Your task to perform on an android device: View the shopping cart on costco.com. Image 0: 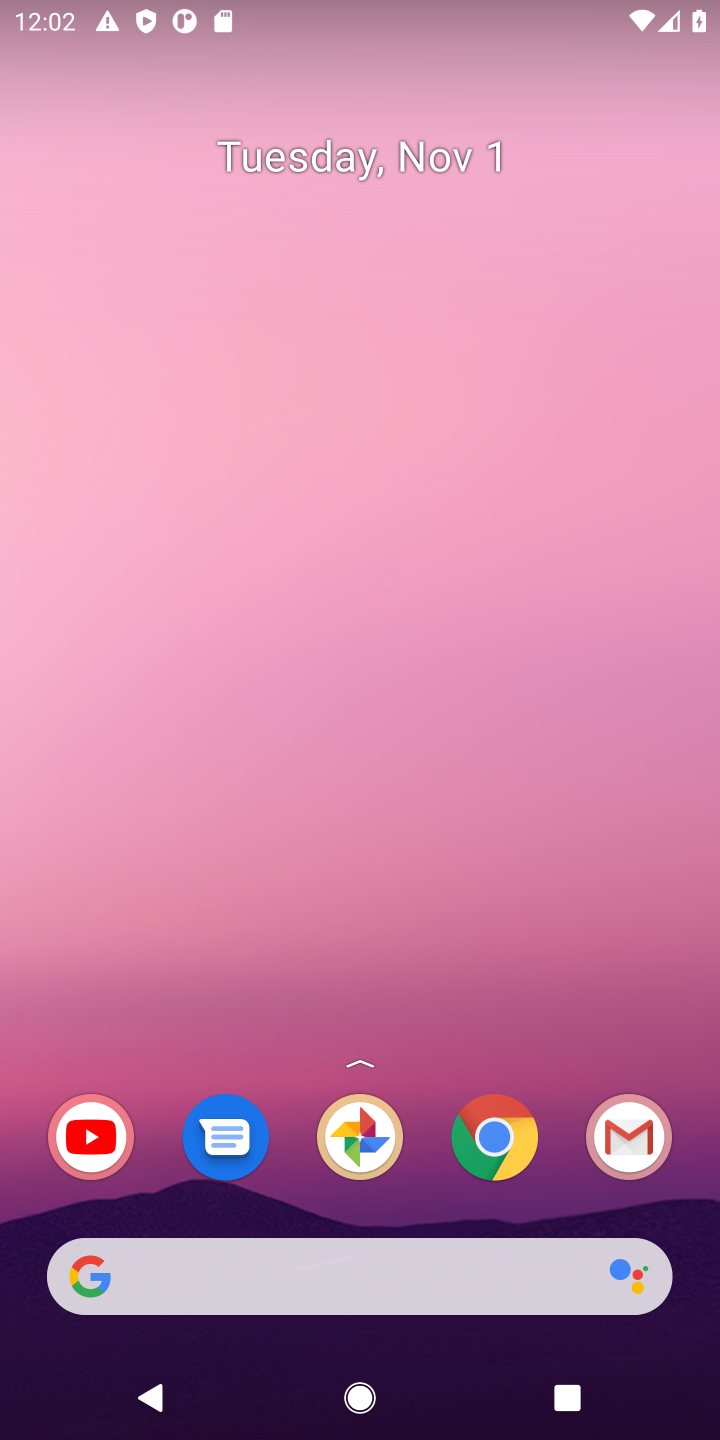
Step 0: click (497, 1139)
Your task to perform on an android device: View the shopping cart on costco.com. Image 1: 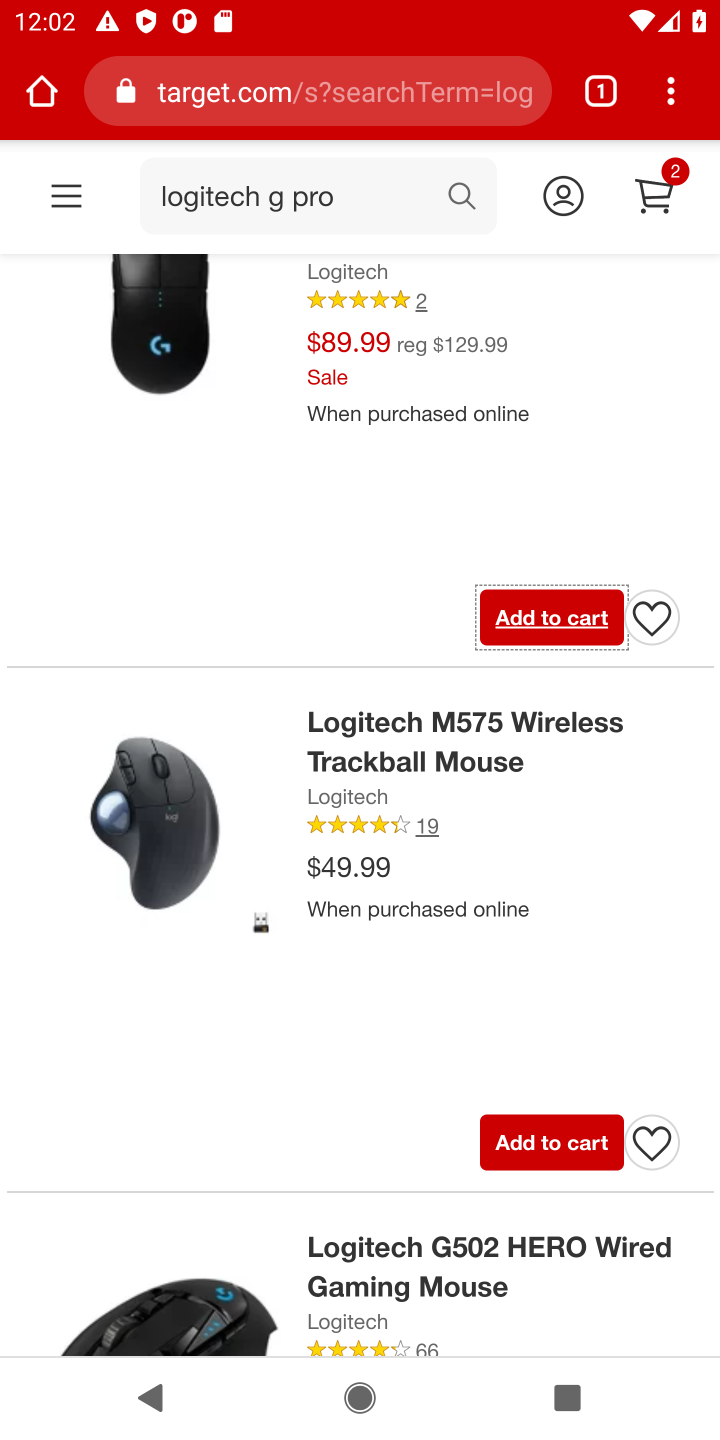
Step 1: click (479, 93)
Your task to perform on an android device: View the shopping cart on costco.com. Image 2: 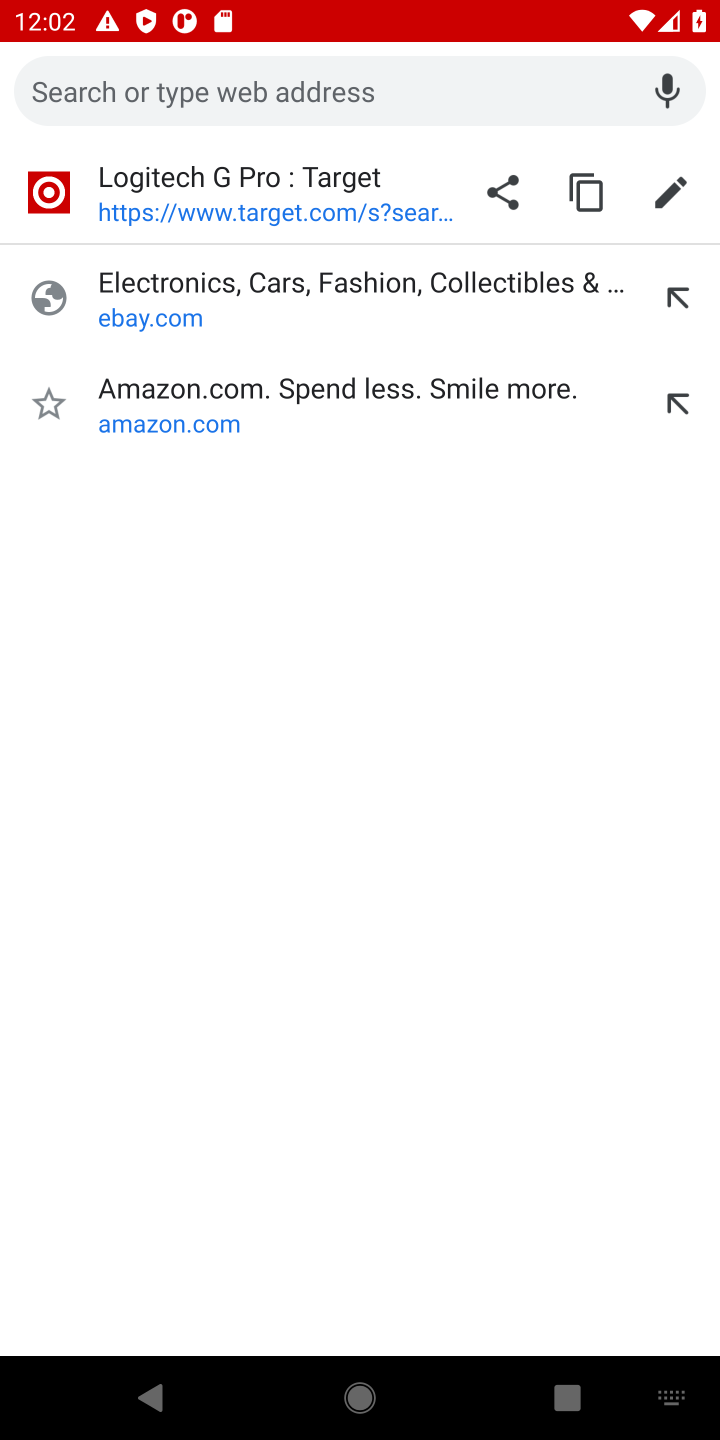
Step 2: type "costco.com"
Your task to perform on an android device: View the shopping cart on costco.com. Image 3: 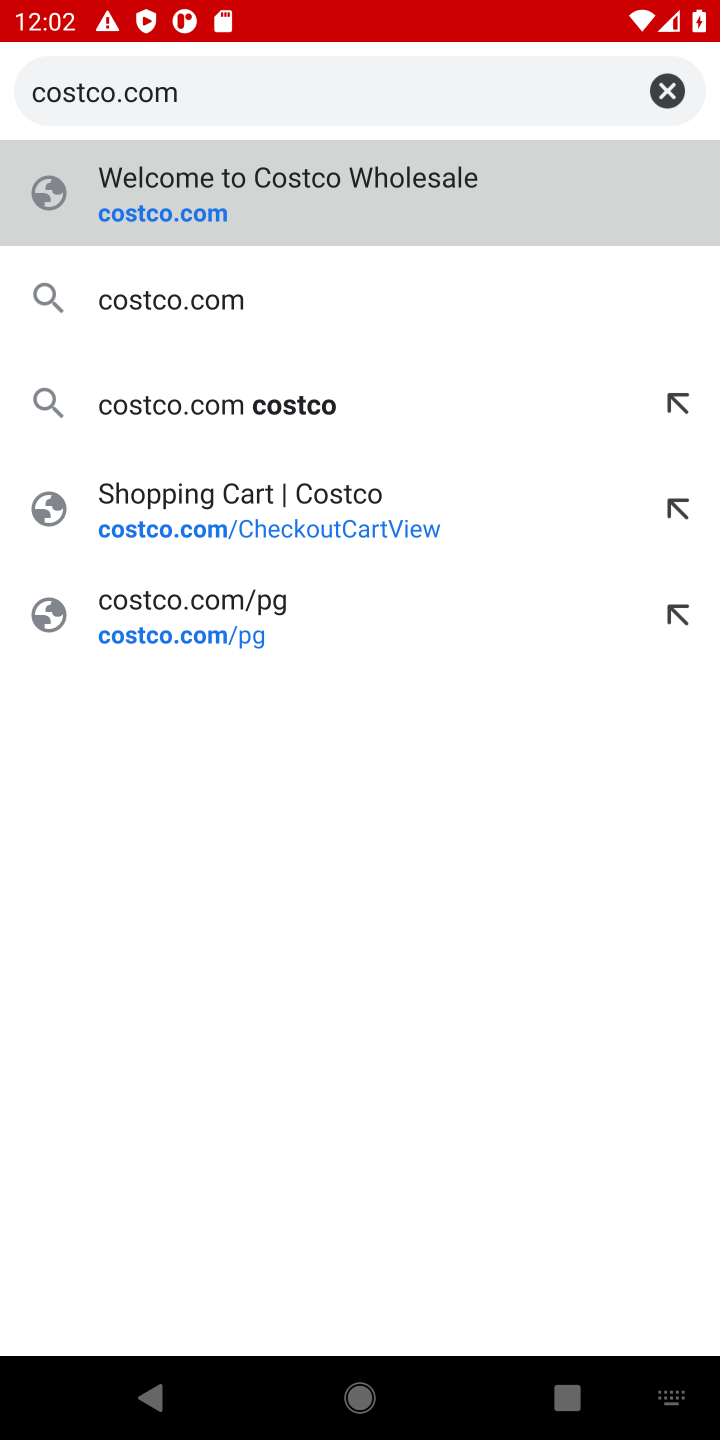
Step 3: click (201, 294)
Your task to perform on an android device: View the shopping cart on costco.com. Image 4: 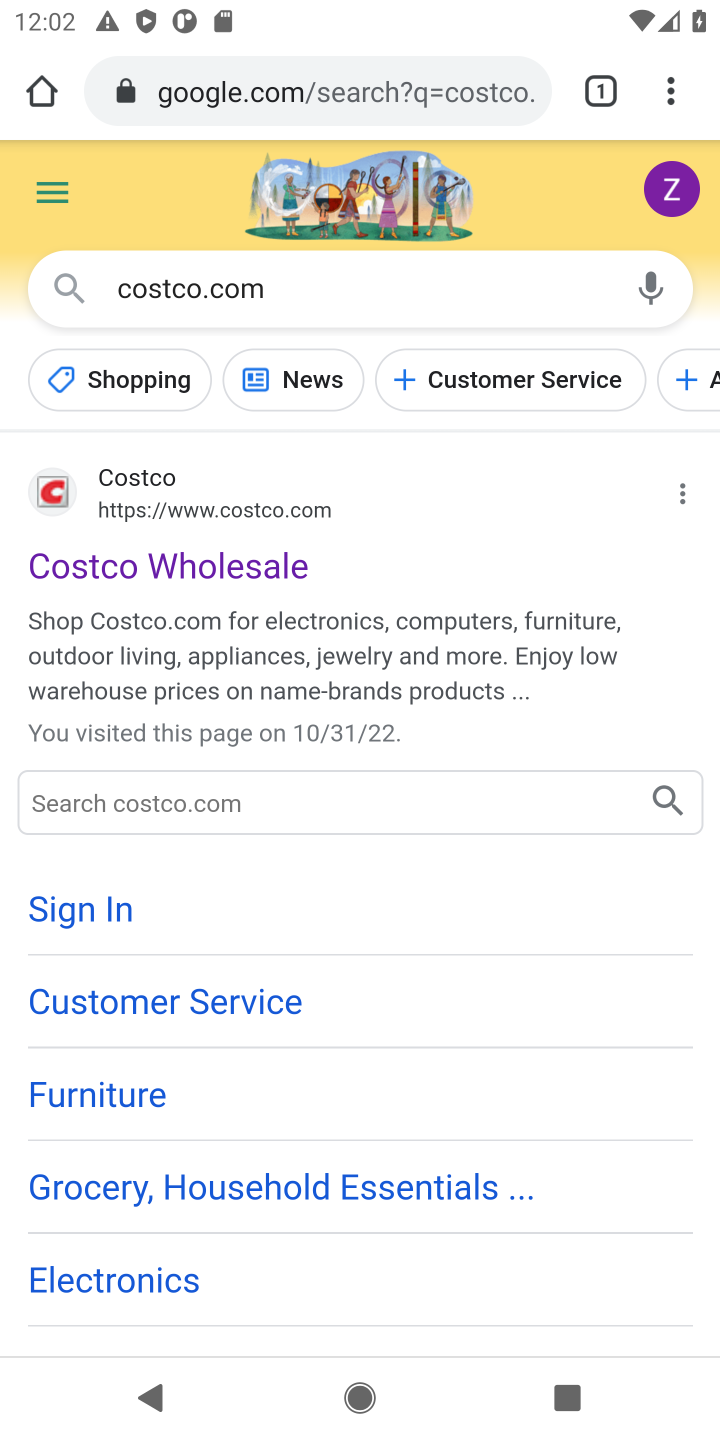
Step 4: click (166, 557)
Your task to perform on an android device: View the shopping cart on costco.com. Image 5: 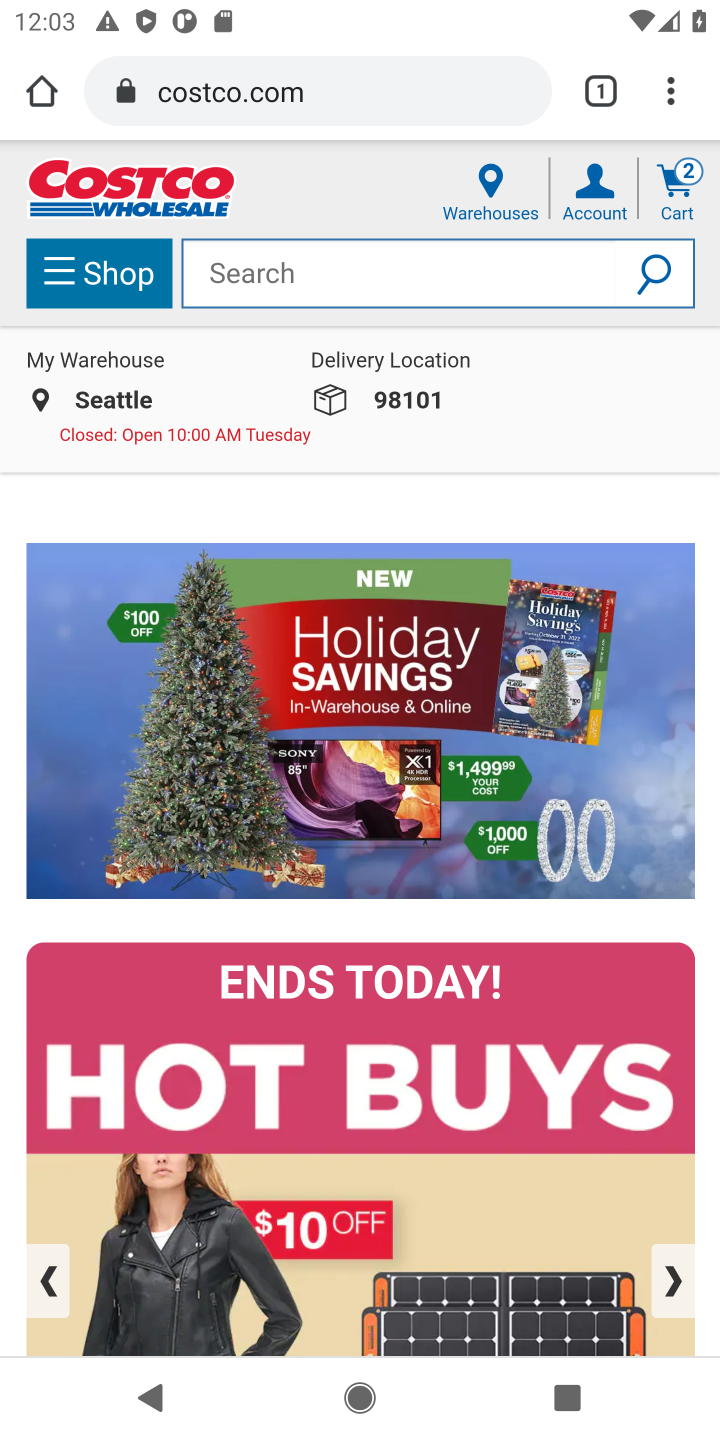
Step 5: click (672, 189)
Your task to perform on an android device: View the shopping cart on costco.com. Image 6: 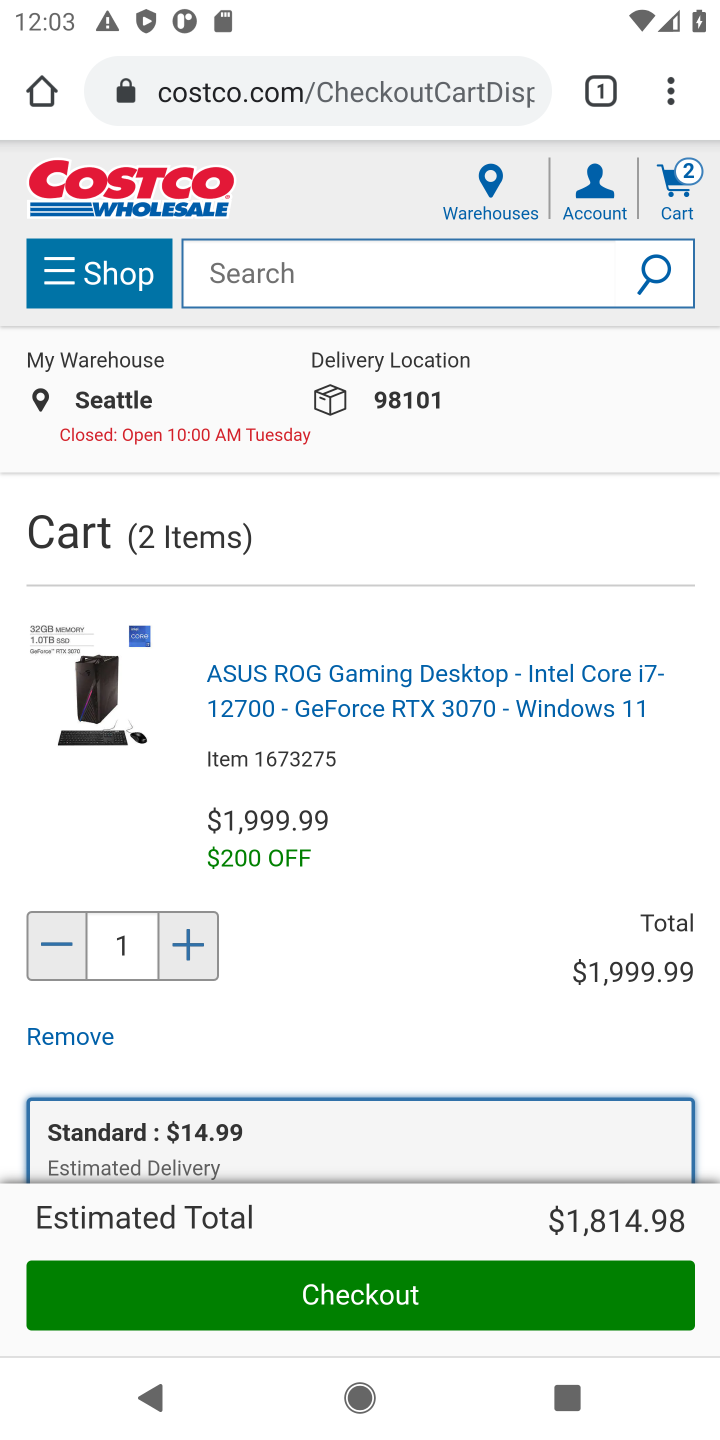
Step 6: task complete